Your task to perform on an android device: Go to ESPN.com Image 0: 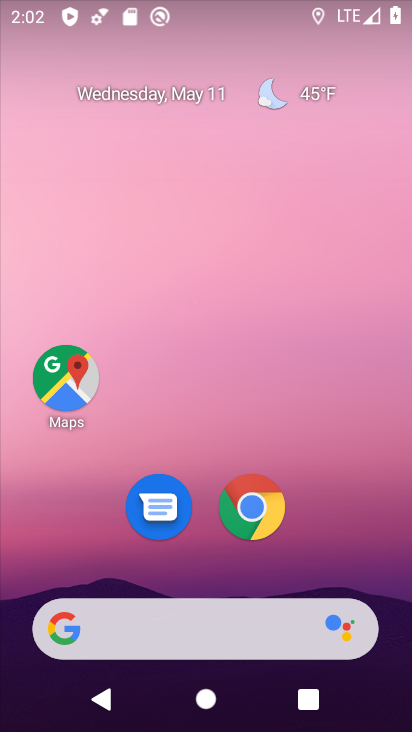
Step 0: drag from (318, 445) to (268, 28)
Your task to perform on an android device: Go to ESPN.com Image 1: 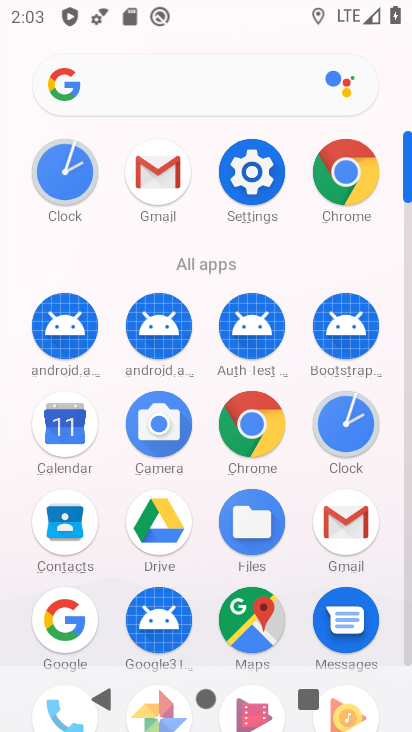
Step 1: click (343, 164)
Your task to perform on an android device: Go to ESPN.com Image 2: 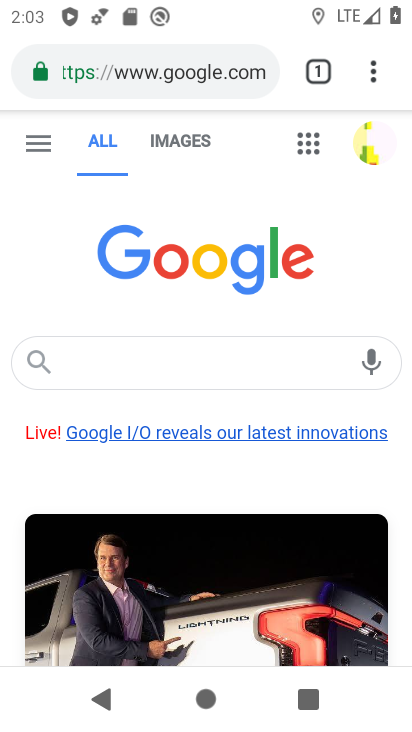
Step 2: click (197, 65)
Your task to perform on an android device: Go to ESPN.com Image 3: 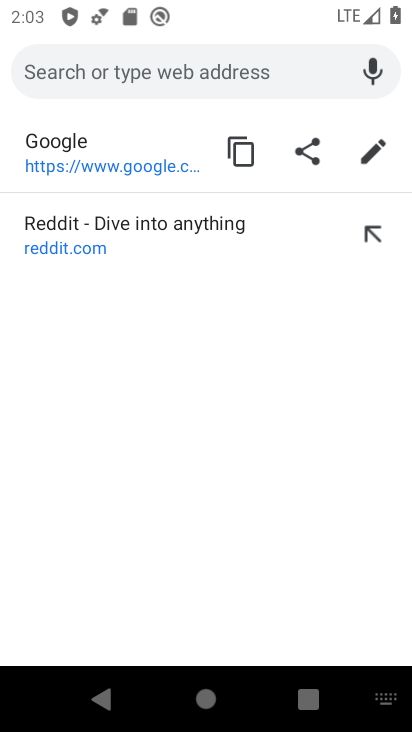
Step 3: click (185, 73)
Your task to perform on an android device: Go to ESPN.com Image 4: 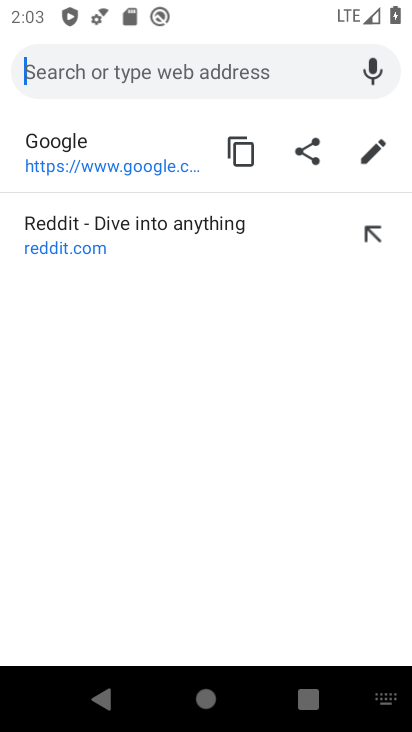
Step 4: type "ESPN.com"
Your task to perform on an android device: Go to ESPN.com Image 5: 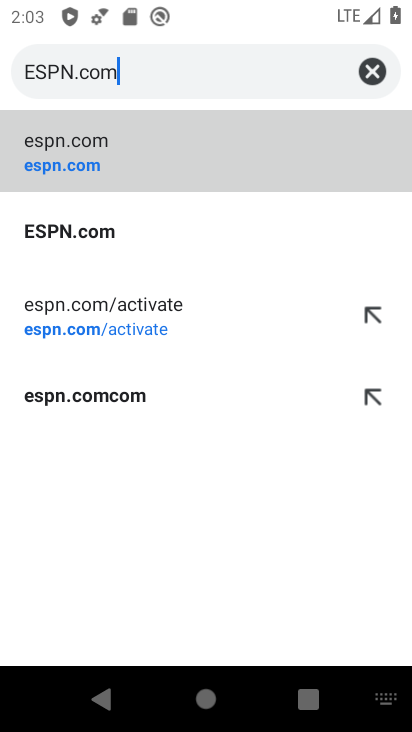
Step 5: type ""
Your task to perform on an android device: Go to ESPN.com Image 6: 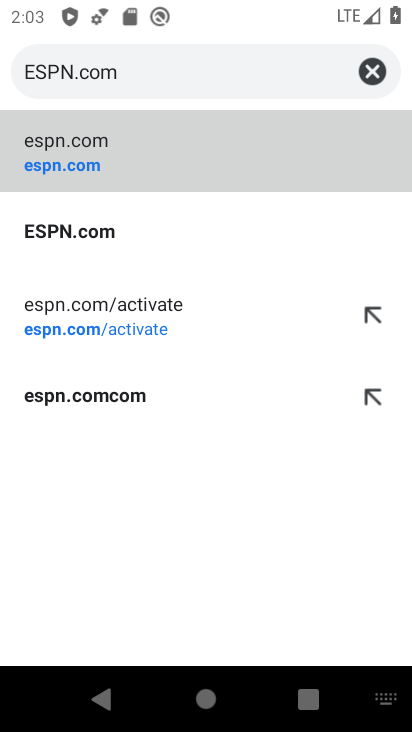
Step 6: click (210, 144)
Your task to perform on an android device: Go to ESPN.com Image 7: 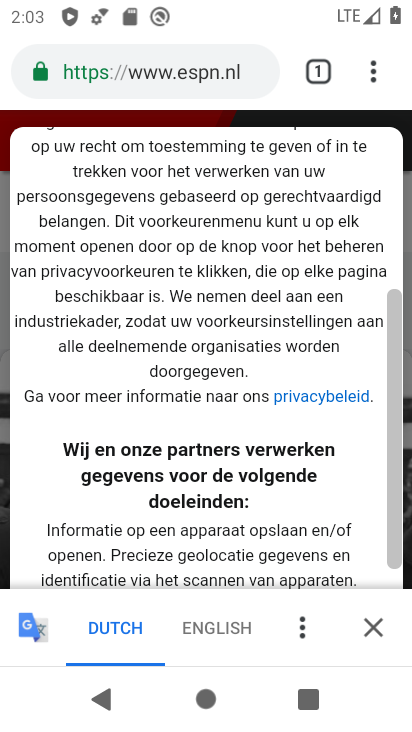
Step 7: drag from (261, 492) to (260, 232)
Your task to perform on an android device: Go to ESPN.com Image 8: 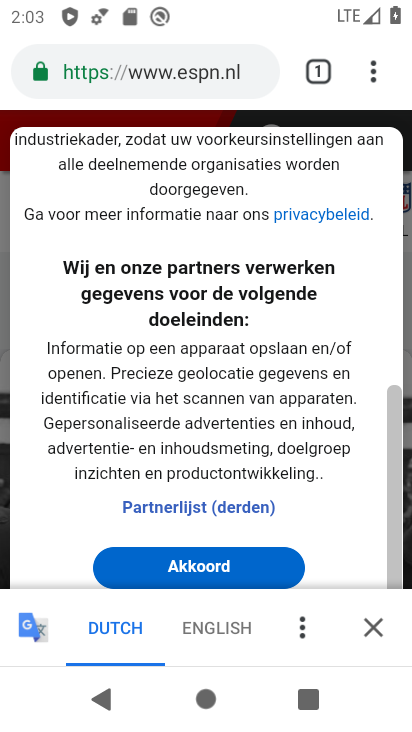
Step 8: click (186, 563)
Your task to perform on an android device: Go to ESPN.com Image 9: 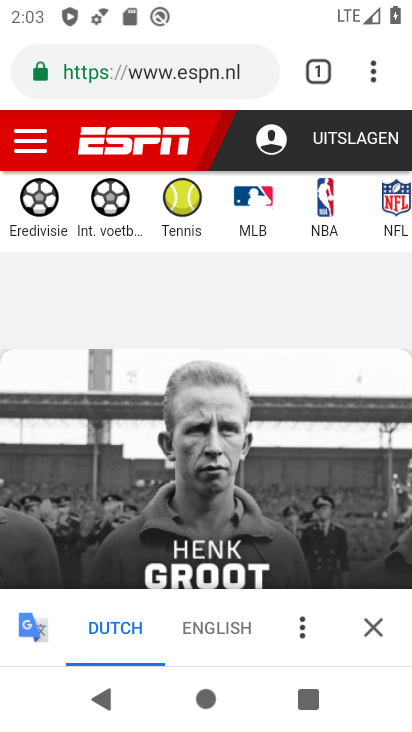
Step 9: task complete